Your task to perform on an android device: toggle airplane mode Image 0: 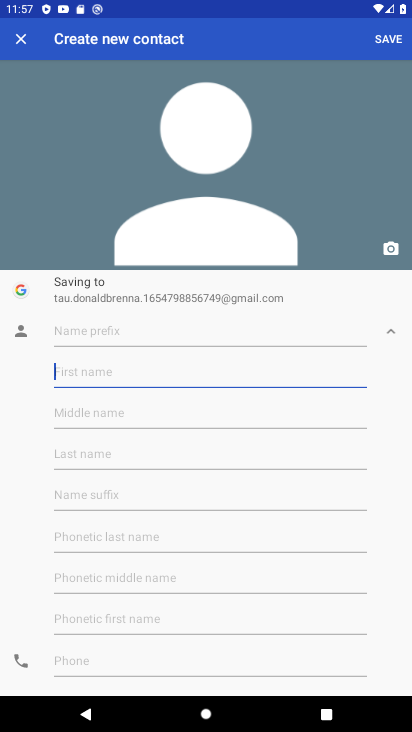
Step 0: press home button
Your task to perform on an android device: toggle airplane mode Image 1: 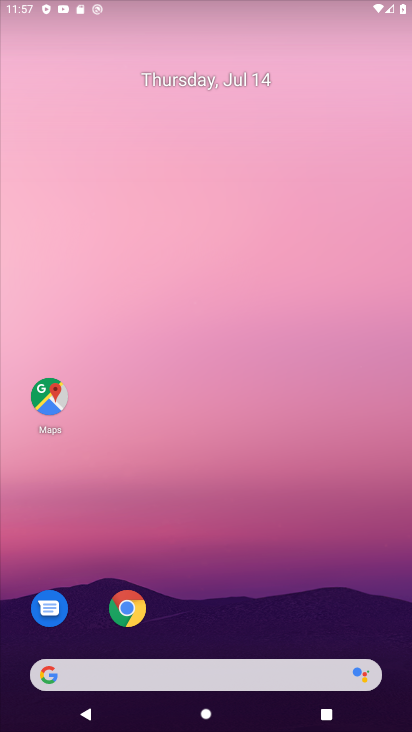
Step 1: drag from (239, 623) to (222, 78)
Your task to perform on an android device: toggle airplane mode Image 2: 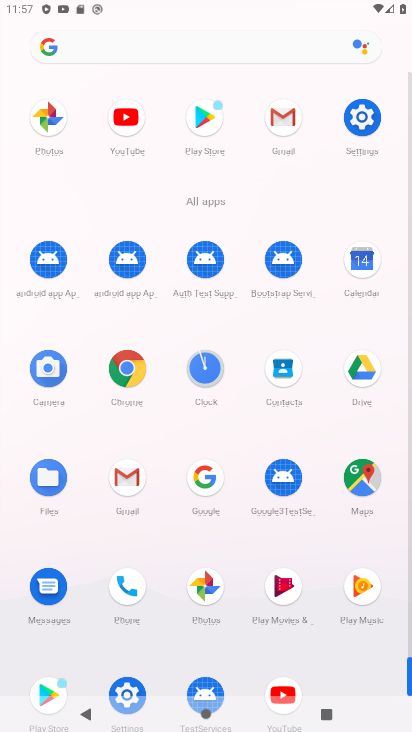
Step 2: click (357, 115)
Your task to perform on an android device: toggle airplane mode Image 3: 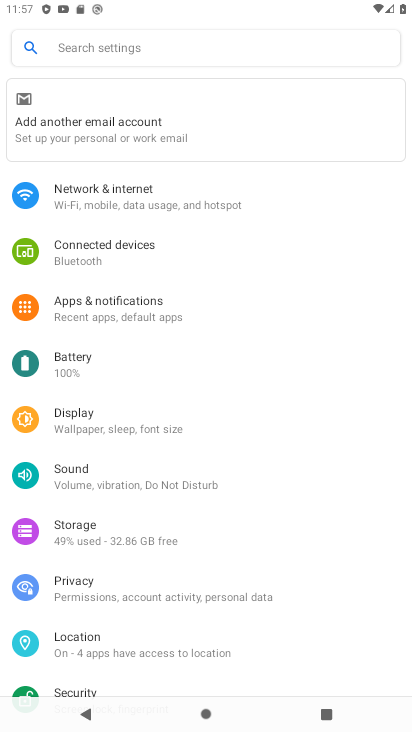
Step 3: click (157, 191)
Your task to perform on an android device: toggle airplane mode Image 4: 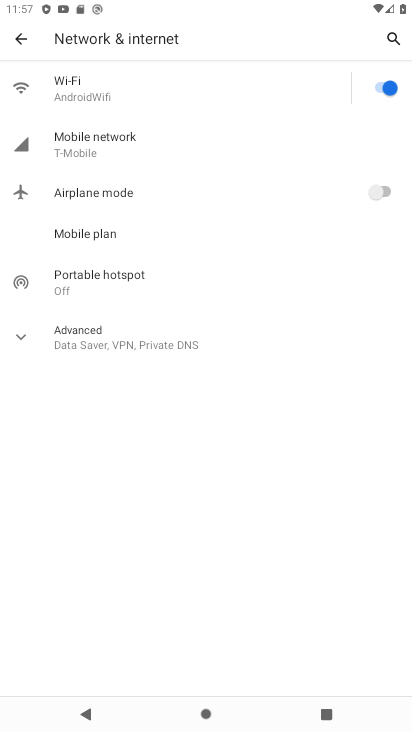
Step 4: click (377, 191)
Your task to perform on an android device: toggle airplane mode Image 5: 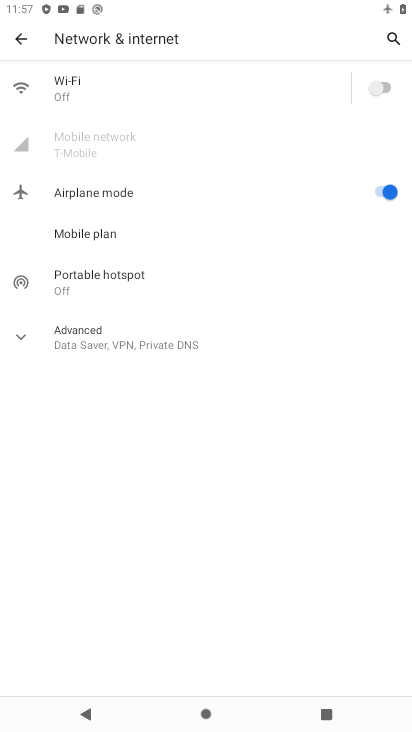
Step 5: task complete